Your task to perform on an android device: open the mobile data screen to see how much data has been used Image 0: 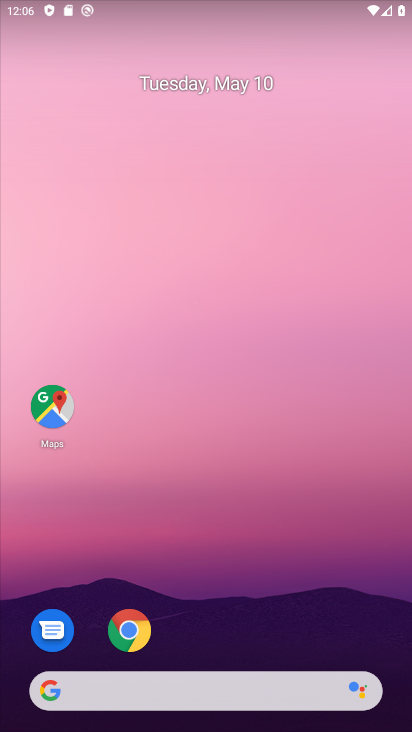
Step 0: drag from (200, 723) to (179, 307)
Your task to perform on an android device: open the mobile data screen to see how much data has been used Image 1: 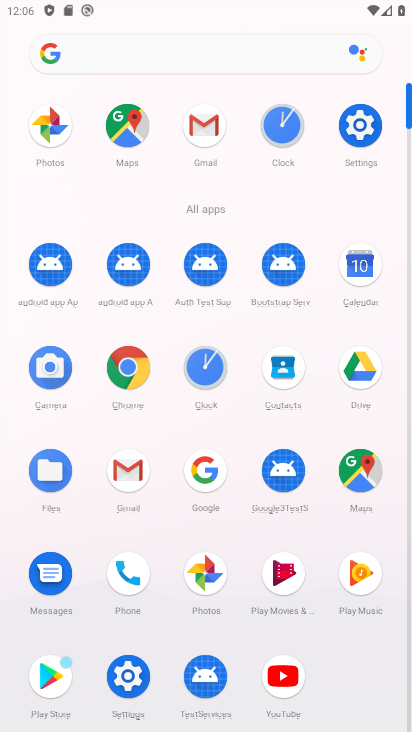
Step 1: click (352, 126)
Your task to perform on an android device: open the mobile data screen to see how much data has been used Image 2: 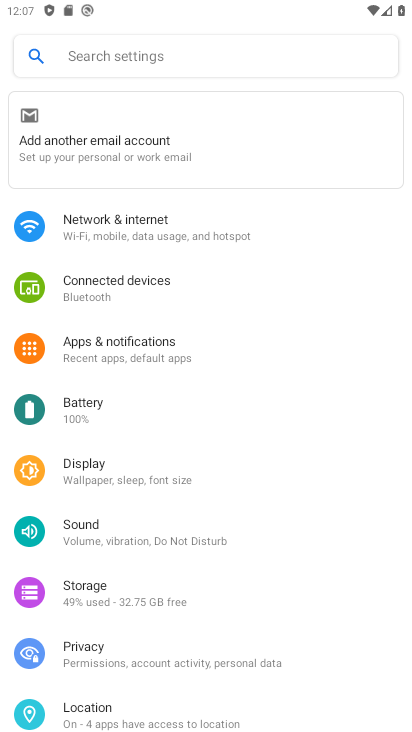
Step 2: click (126, 221)
Your task to perform on an android device: open the mobile data screen to see how much data has been used Image 3: 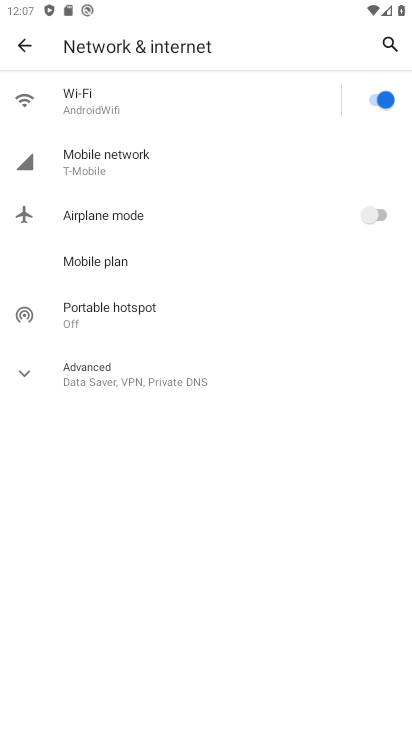
Step 3: click (85, 157)
Your task to perform on an android device: open the mobile data screen to see how much data has been used Image 4: 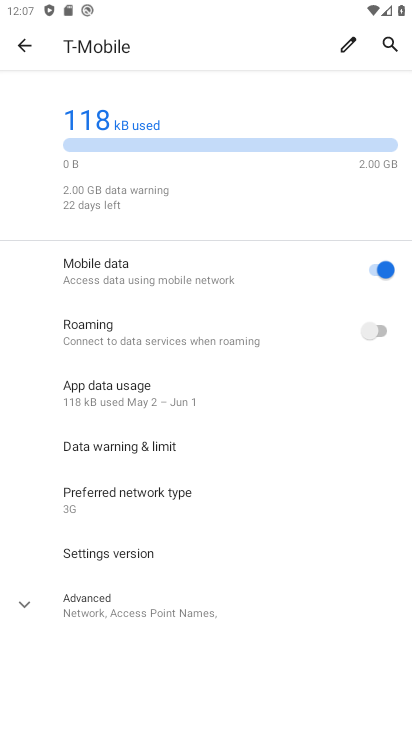
Step 4: click (125, 390)
Your task to perform on an android device: open the mobile data screen to see how much data has been used Image 5: 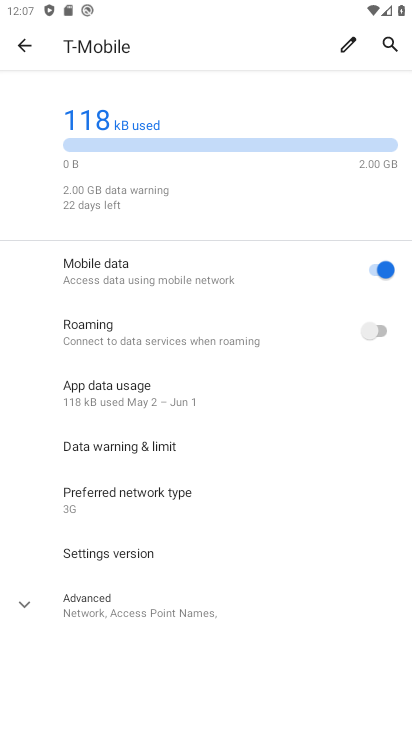
Step 5: click (103, 387)
Your task to perform on an android device: open the mobile data screen to see how much data has been used Image 6: 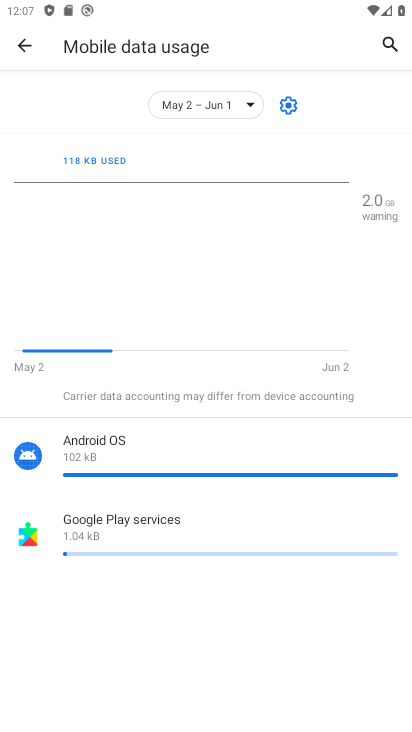
Step 6: task complete